Your task to perform on an android device: uninstall "WhatsApp Messenger" Image 0: 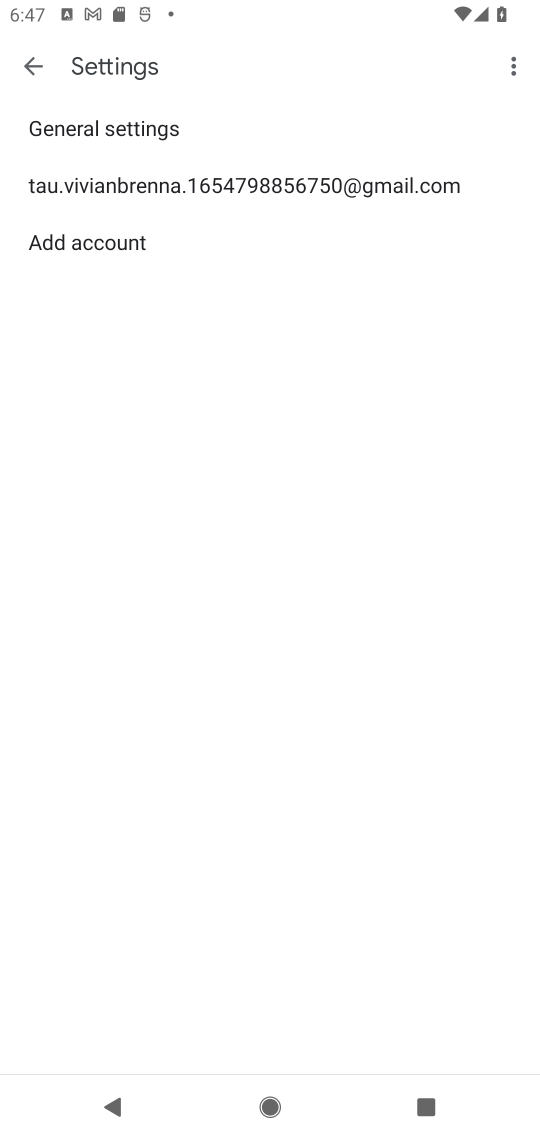
Step 0: press back button
Your task to perform on an android device: uninstall "WhatsApp Messenger" Image 1: 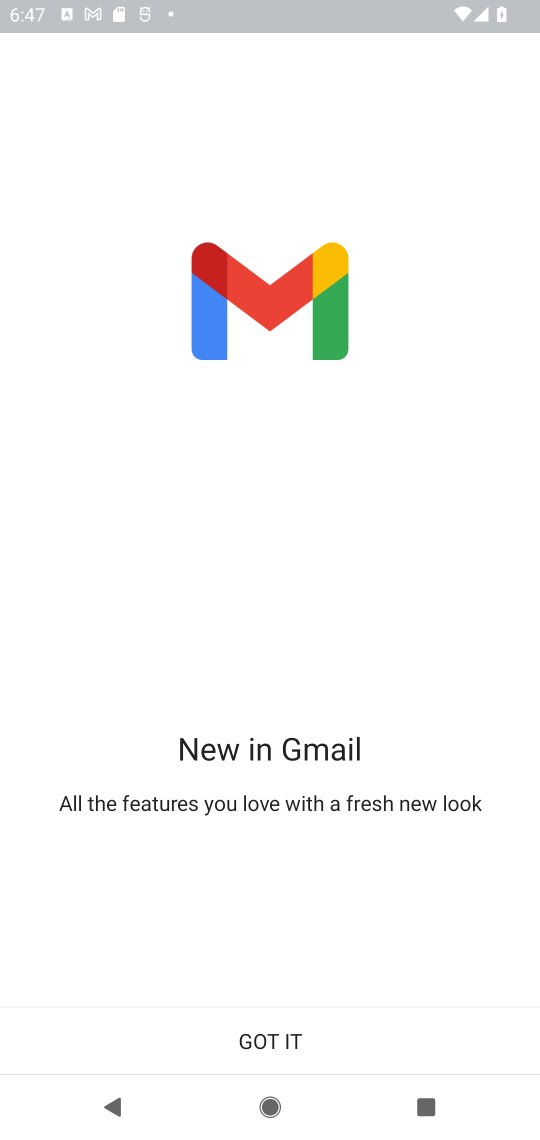
Step 1: press back button
Your task to perform on an android device: uninstall "WhatsApp Messenger" Image 2: 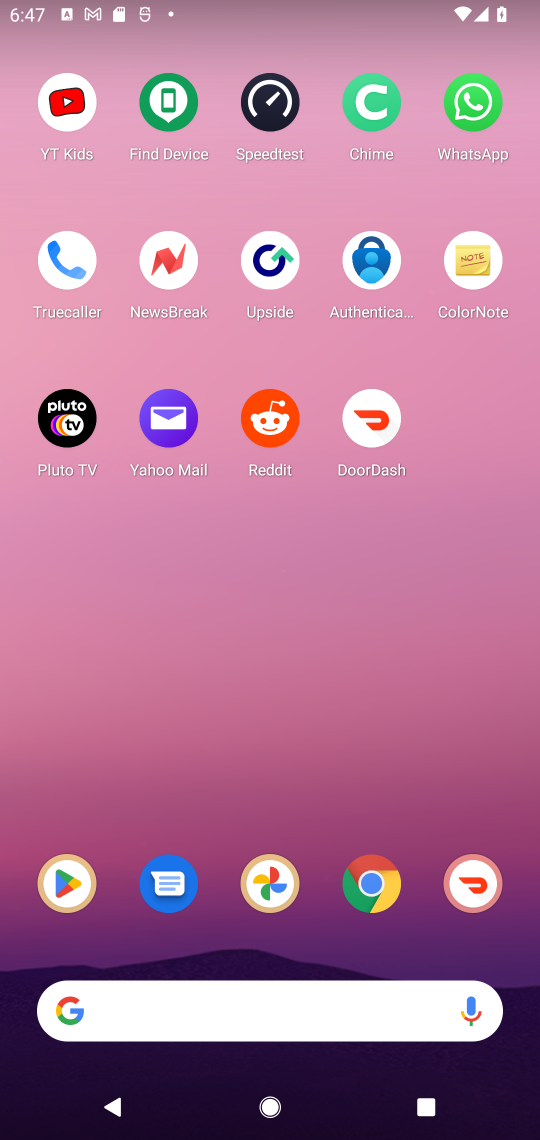
Step 2: click (56, 874)
Your task to perform on an android device: uninstall "WhatsApp Messenger" Image 3: 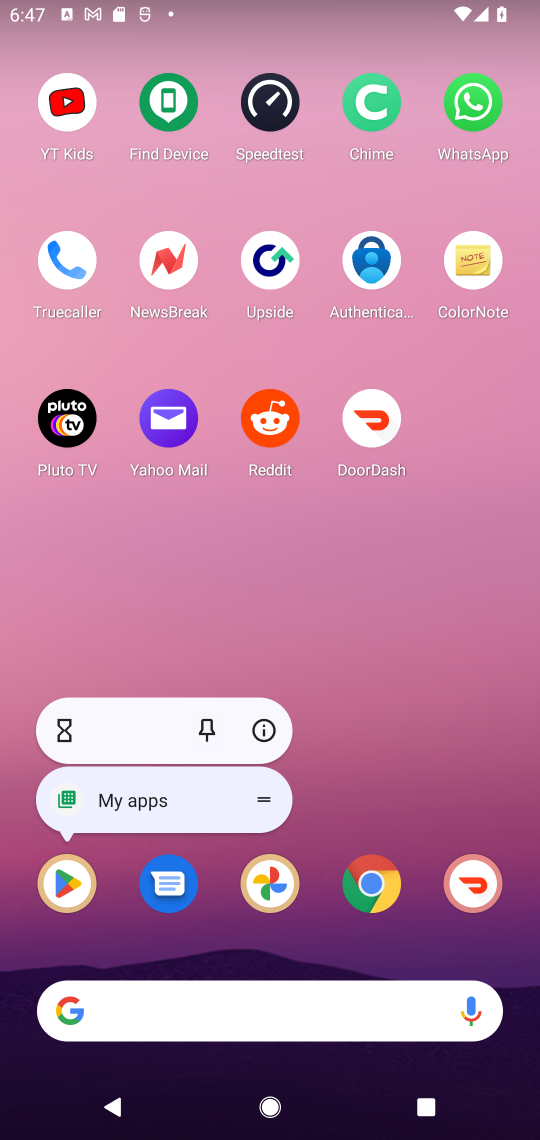
Step 3: click (76, 889)
Your task to perform on an android device: uninstall "WhatsApp Messenger" Image 4: 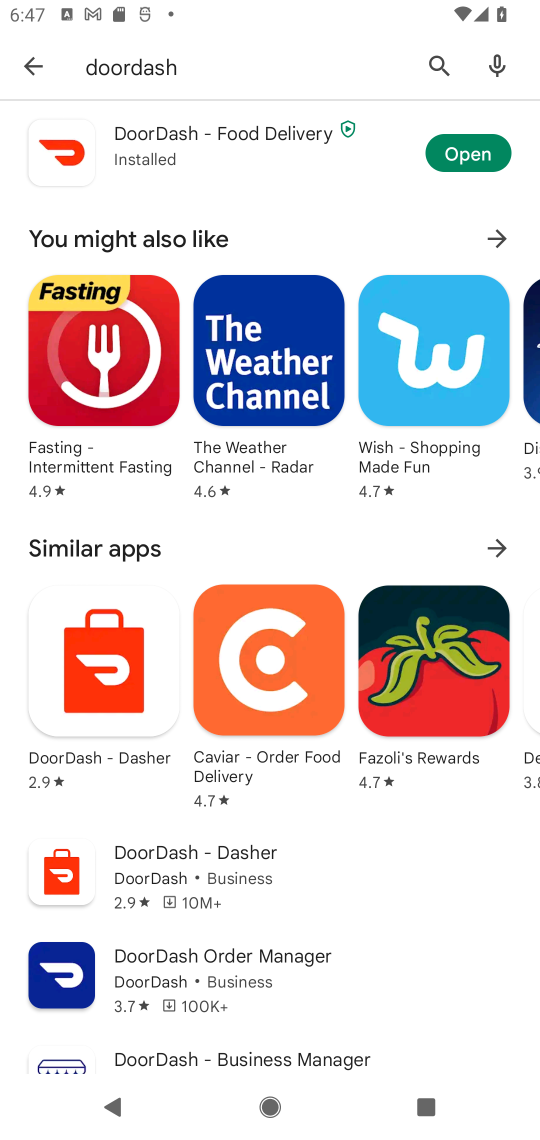
Step 4: click (432, 60)
Your task to perform on an android device: uninstall "WhatsApp Messenger" Image 5: 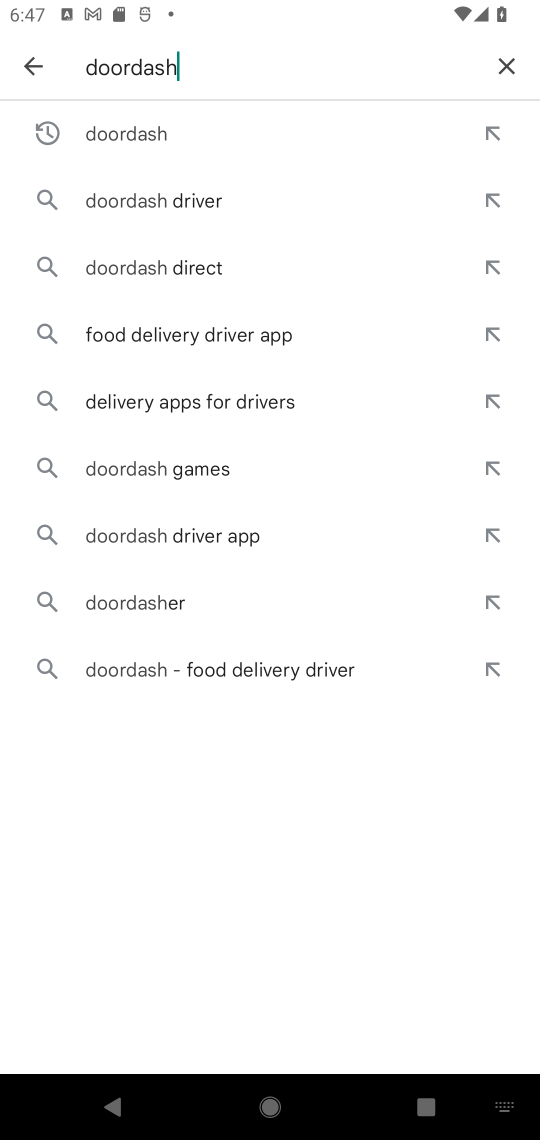
Step 5: click (511, 62)
Your task to perform on an android device: uninstall "WhatsApp Messenger" Image 6: 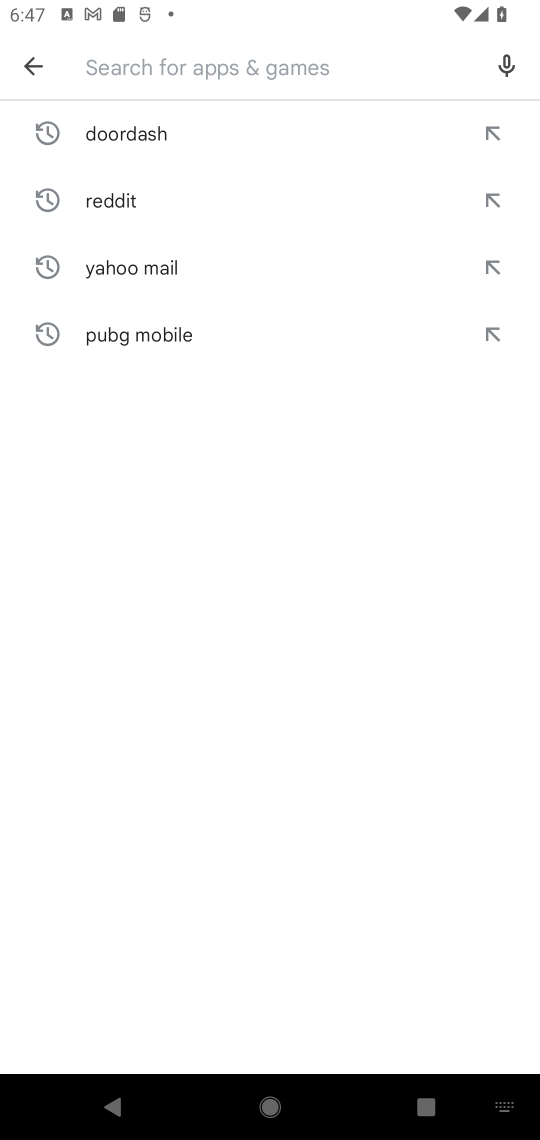
Step 6: click (133, 70)
Your task to perform on an android device: uninstall "WhatsApp Messenger" Image 7: 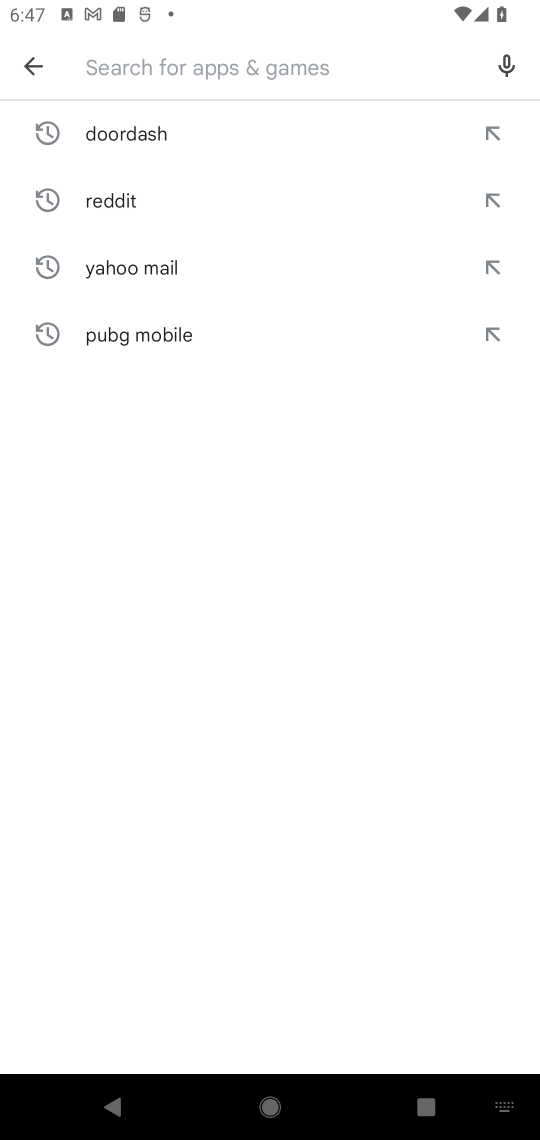
Step 7: type "whatsapp"
Your task to perform on an android device: uninstall "WhatsApp Messenger" Image 8: 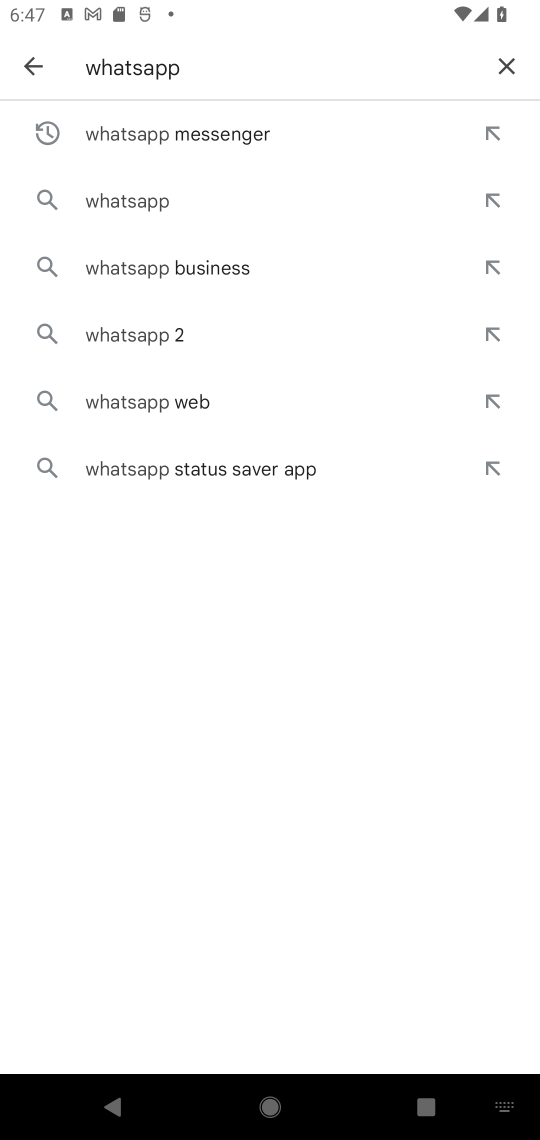
Step 8: click (222, 134)
Your task to perform on an android device: uninstall "WhatsApp Messenger" Image 9: 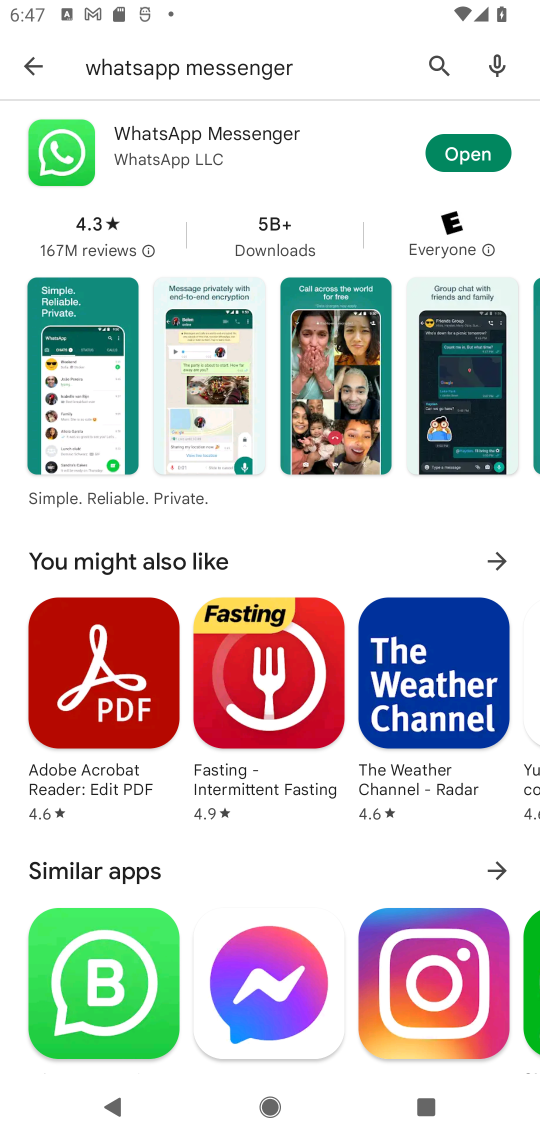
Step 9: click (201, 146)
Your task to perform on an android device: uninstall "WhatsApp Messenger" Image 10: 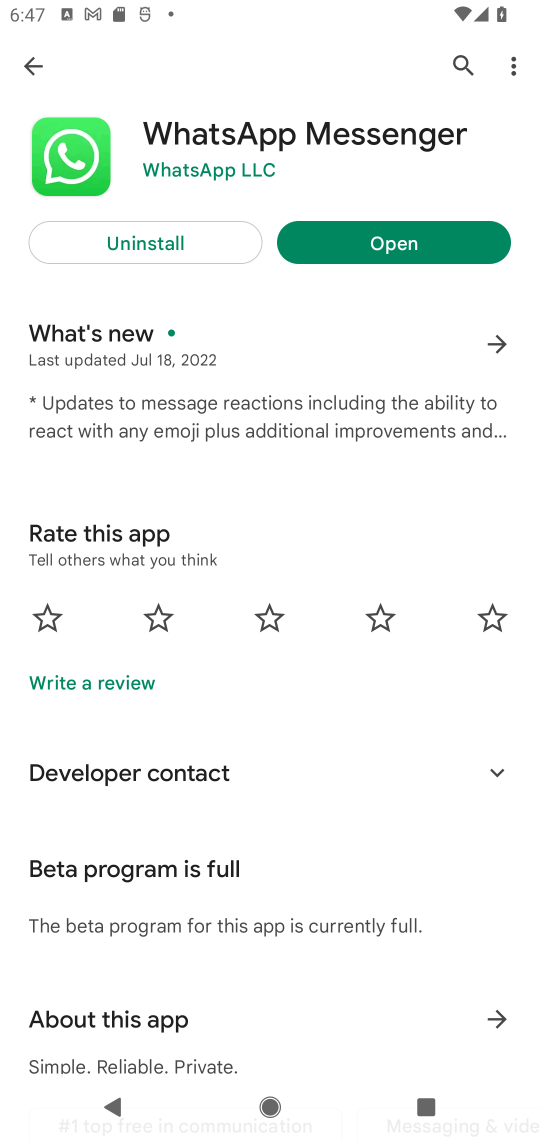
Step 10: click (132, 237)
Your task to perform on an android device: uninstall "WhatsApp Messenger" Image 11: 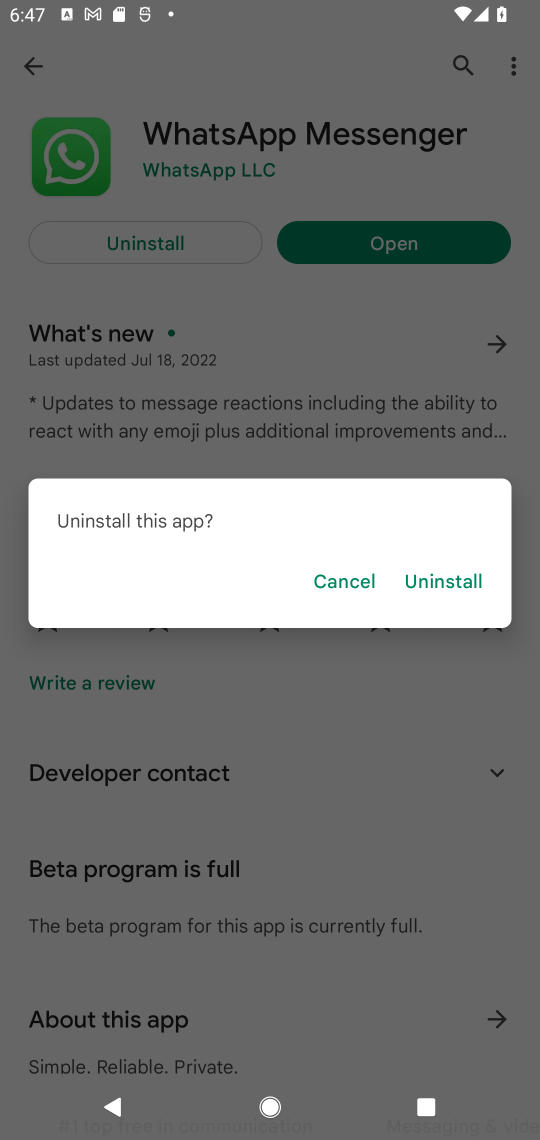
Step 11: click (481, 583)
Your task to perform on an android device: uninstall "WhatsApp Messenger" Image 12: 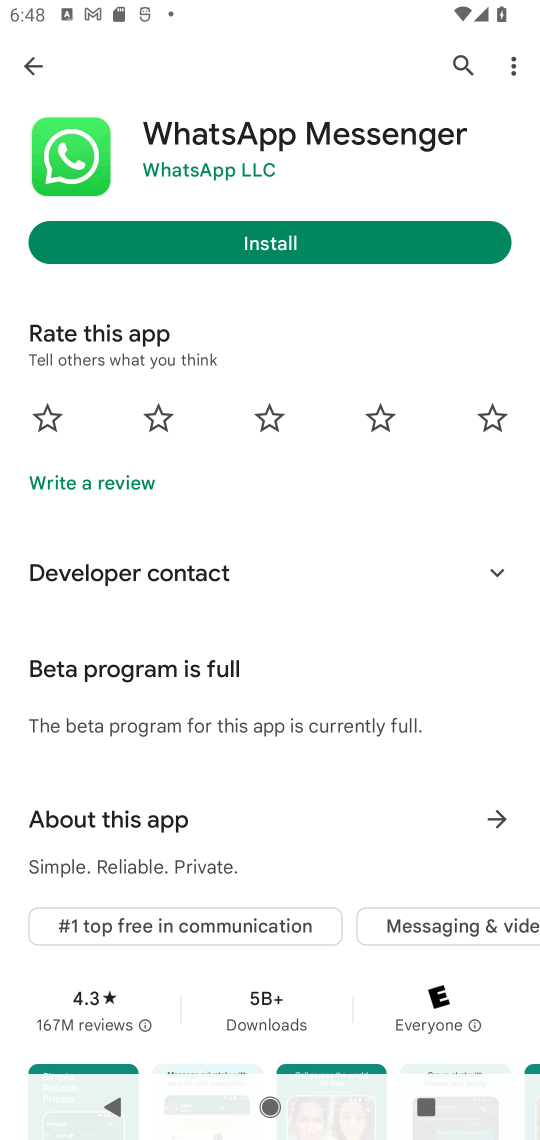
Step 12: task complete